Your task to perform on an android device: Open Amazon Image 0: 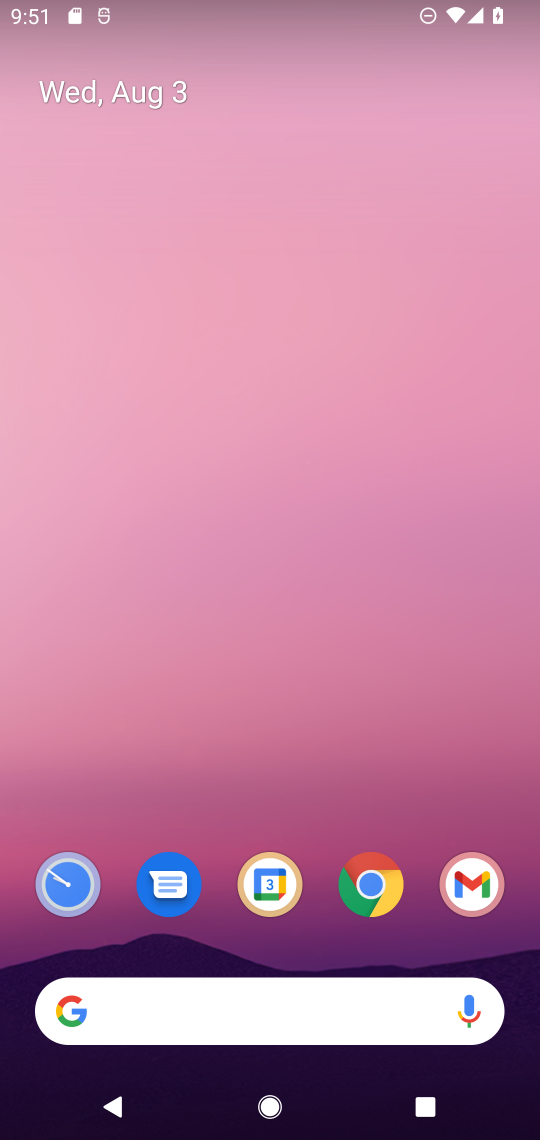
Step 0: click (181, 1002)
Your task to perform on an android device: Open Amazon Image 1: 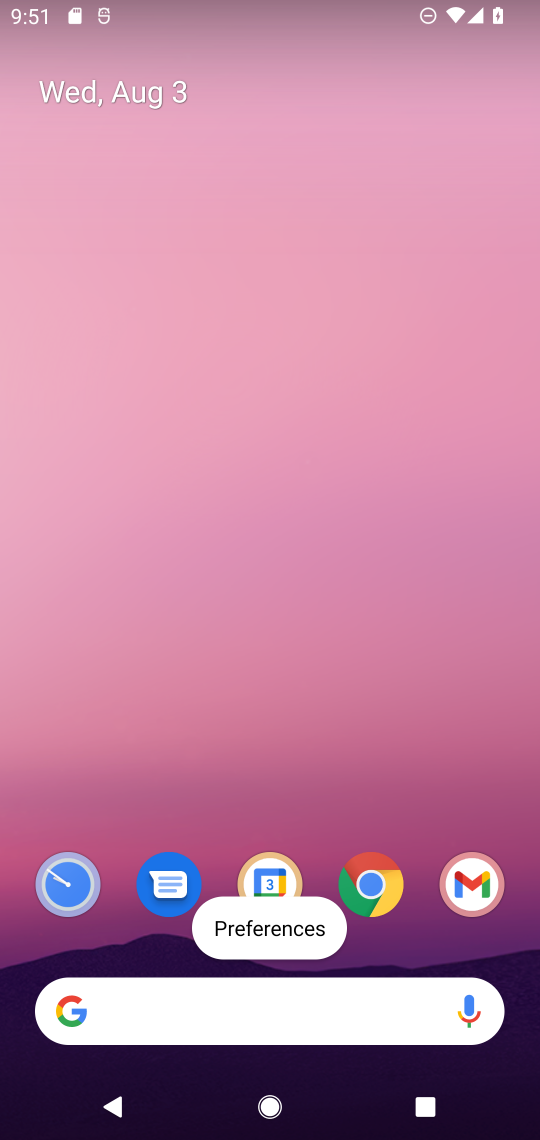
Step 1: click (238, 1001)
Your task to perform on an android device: Open Amazon Image 2: 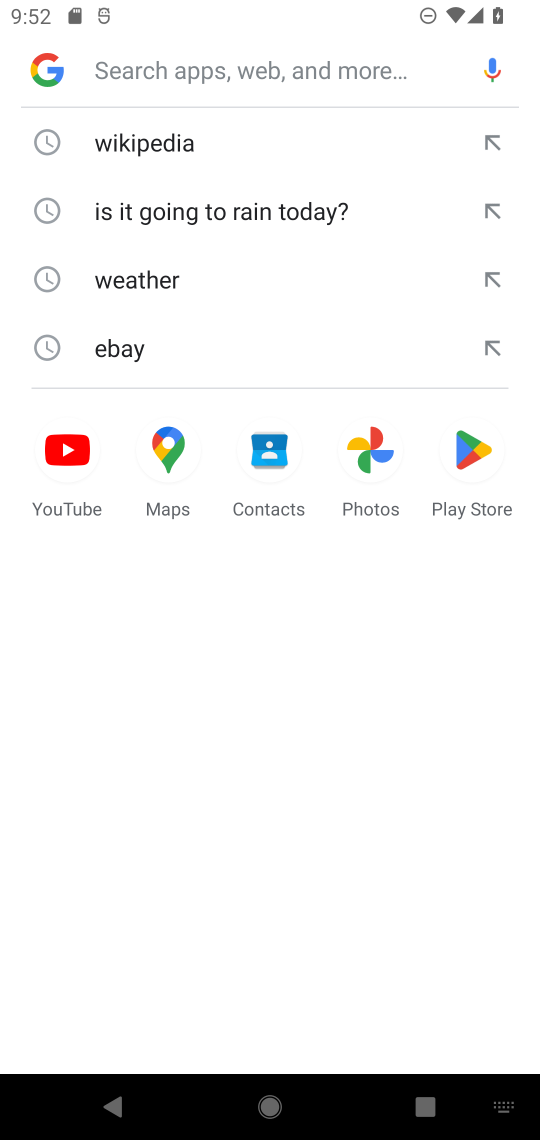
Step 2: type " Amazon"
Your task to perform on an android device: Open Amazon Image 3: 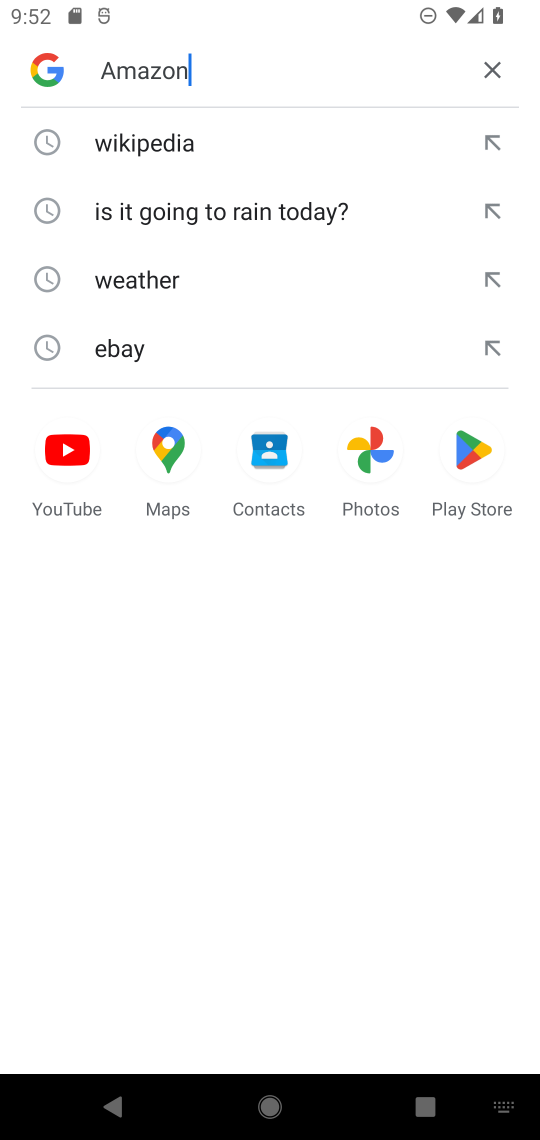
Step 3: type ""
Your task to perform on an android device: Open Amazon Image 4: 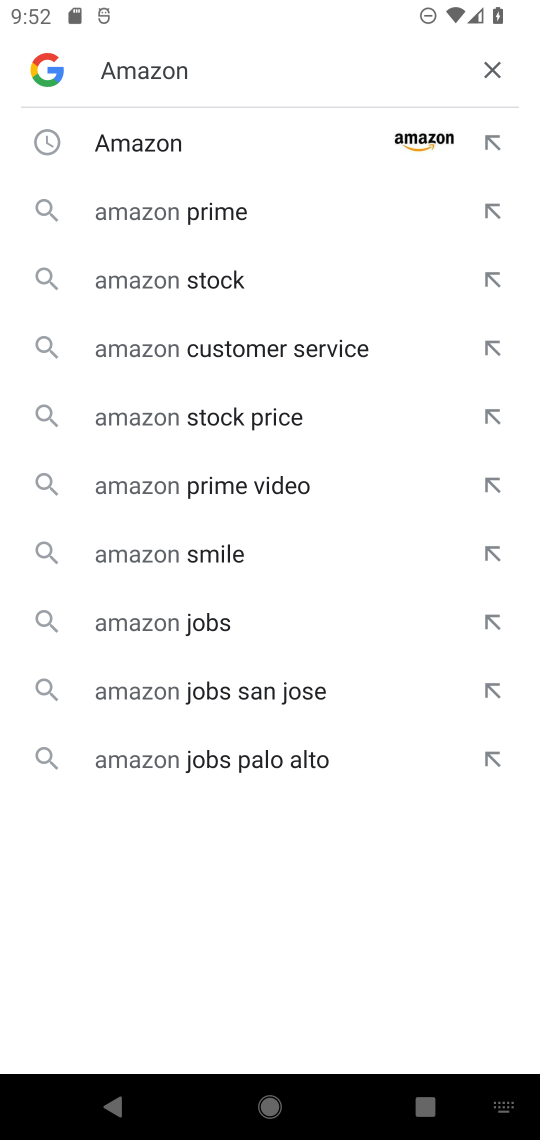
Step 4: task complete